Your task to perform on an android device: Open the map Image 0: 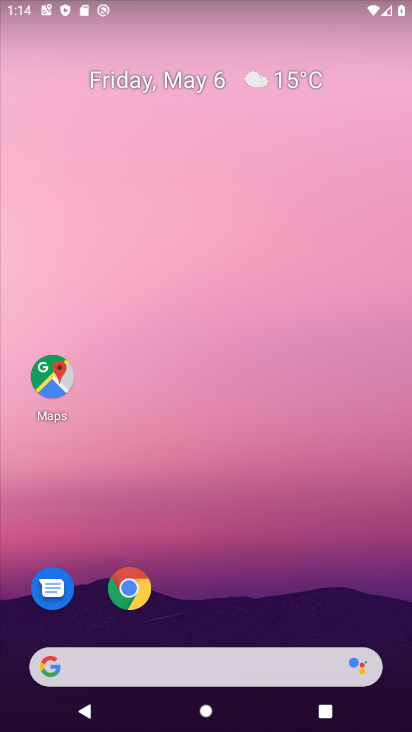
Step 0: click (248, 80)
Your task to perform on an android device: Open the map Image 1: 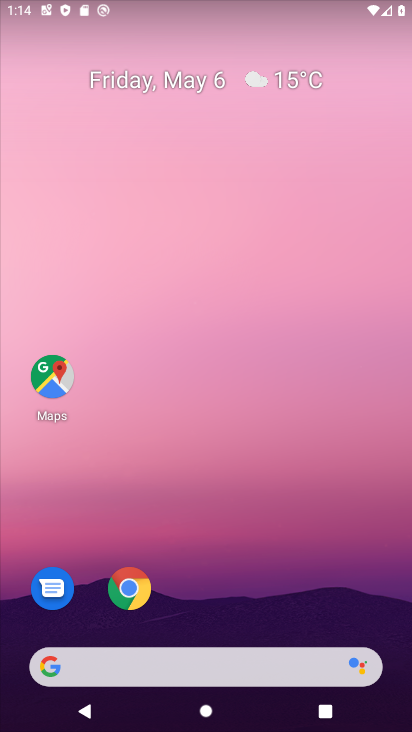
Step 1: drag from (243, 491) to (246, 197)
Your task to perform on an android device: Open the map Image 2: 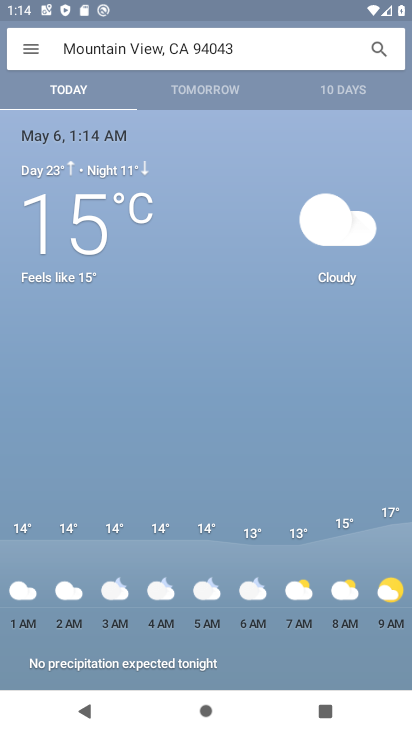
Step 2: press home button
Your task to perform on an android device: Open the map Image 3: 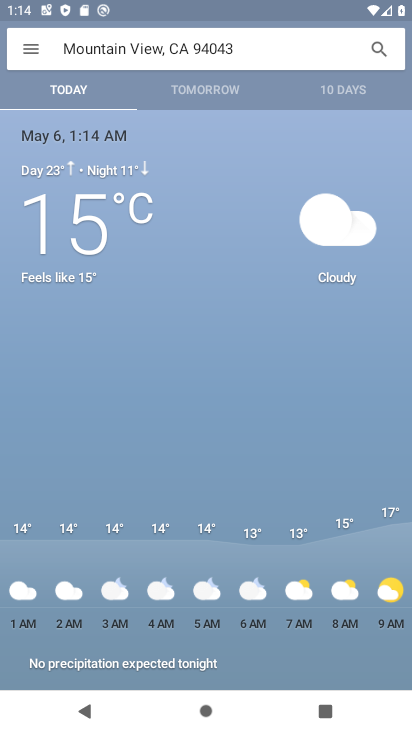
Step 3: press home button
Your task to perform on an android device: Open the map Image 4: 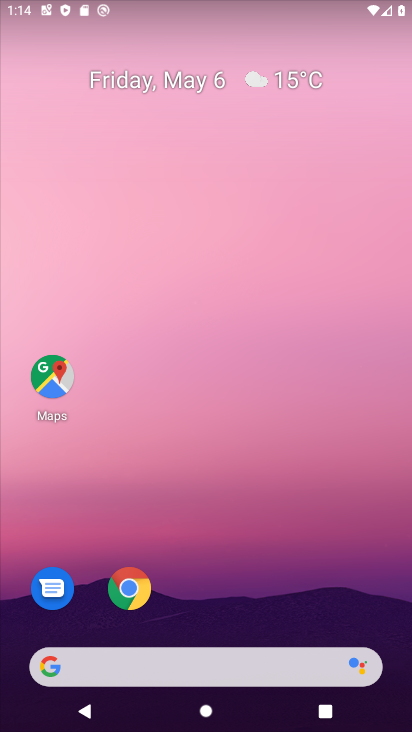
Step 4: drag from (220, 581) to (286, 203)
Your task to perform on an android device: Open the map Image 5: 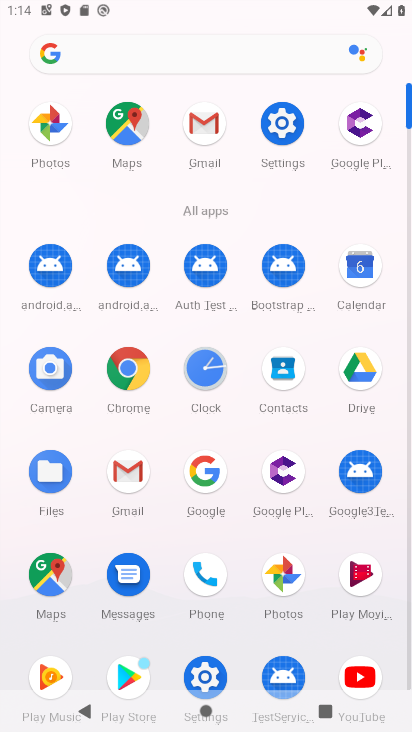
Step 5: click (64, 576)
Your task to perform on an android device: Open the map Image 6: 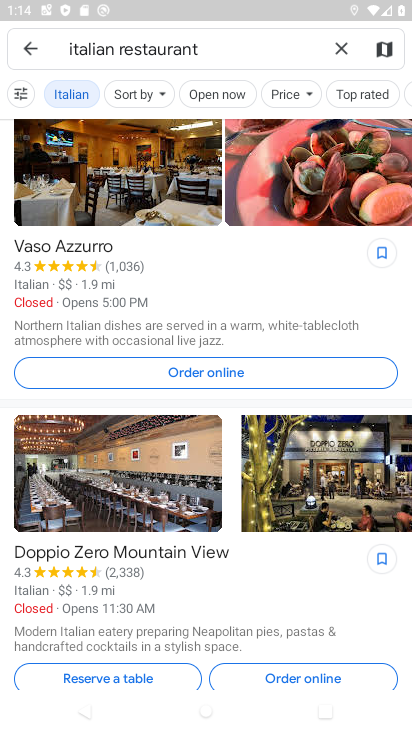
Step 6: task complete